Your task to perform on an android device: turn on wifi Image 0: 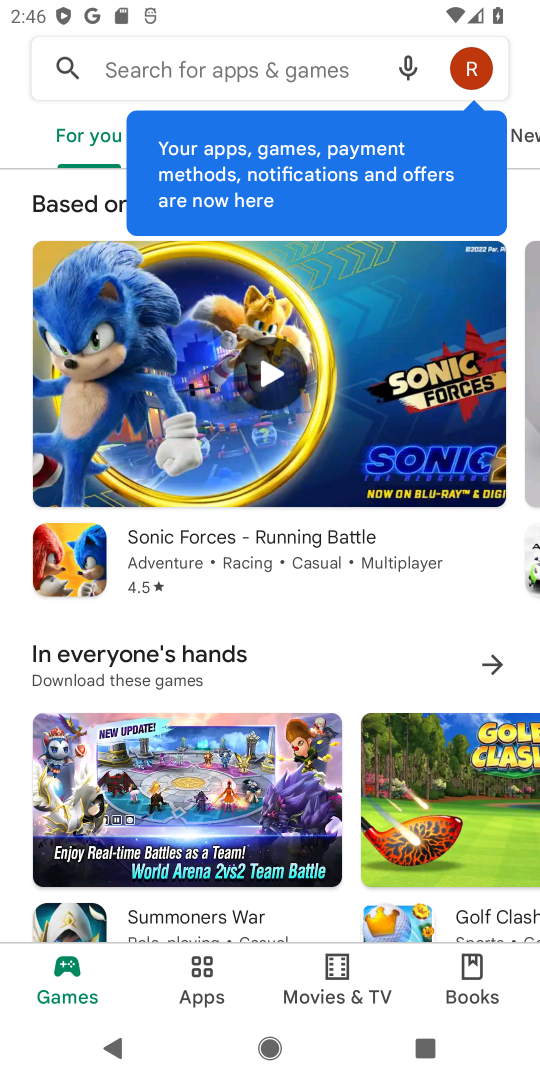
Step 0: press home button
Your task to perform on an android device: turn on wifi Image 1: 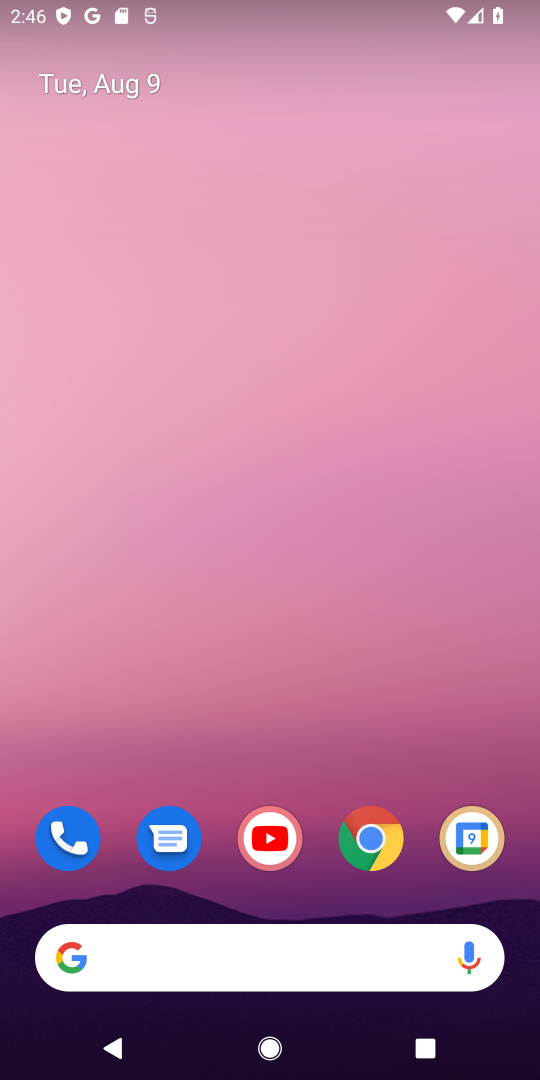
Step 1: drag from (390, 773) to (345, 22)
Your task to perform on an android device: turn on wifi Image 2: 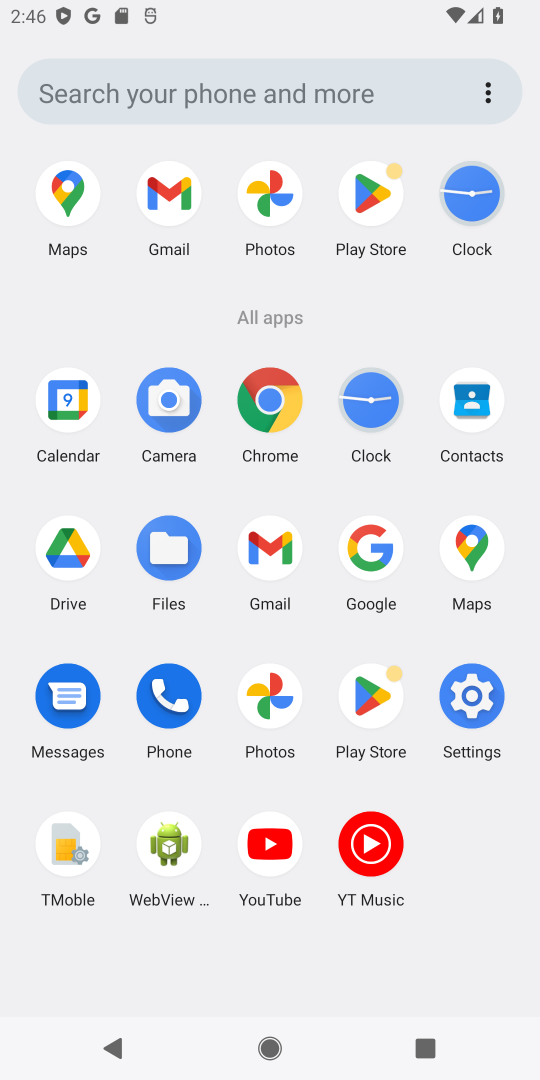
Step 2: click (475, 692)
Your task to perform on an android device: turn on wifi Image 3: 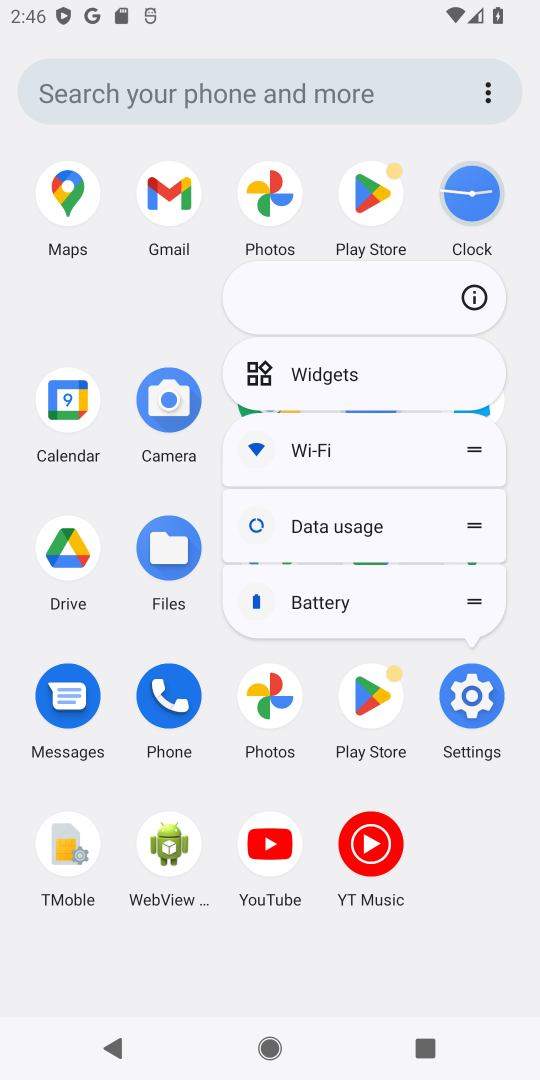
Step 3: click (475, 692)
Your task to perform on an android device: turn on wifi Image 4: 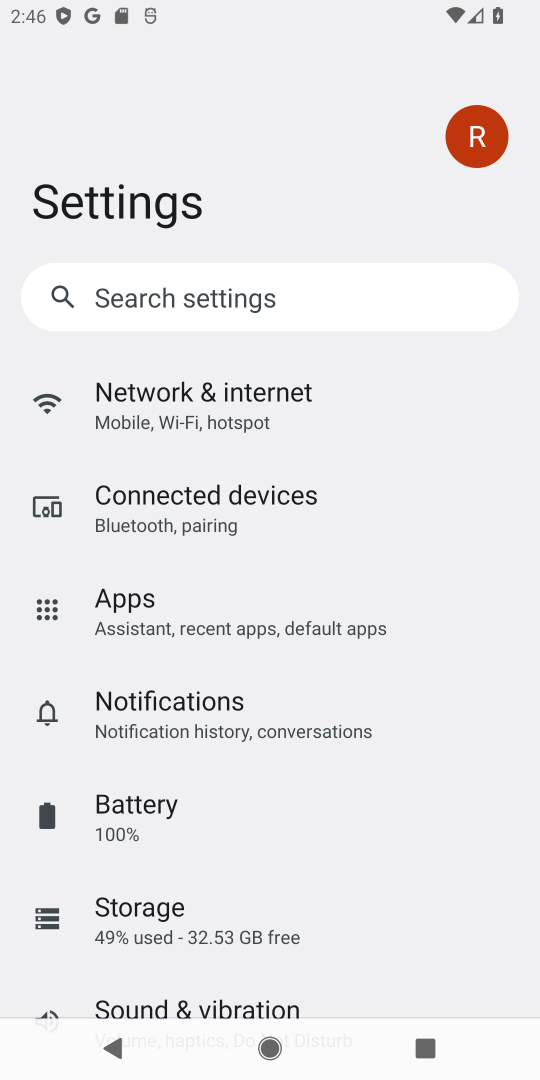
Step 4: click (181, 378)
Your task to perform on an android device: turn on wifi Image 5: 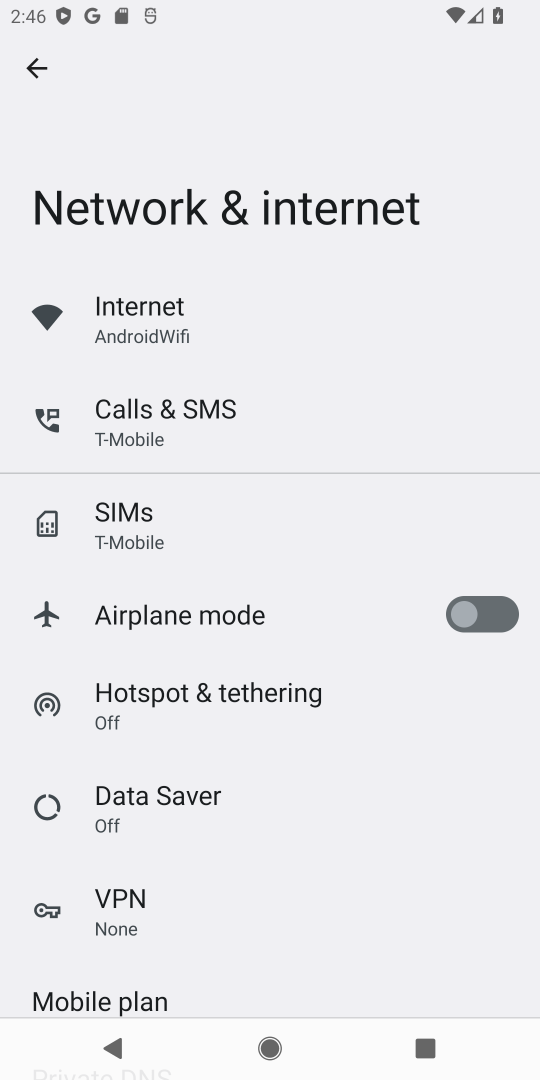
Step 5: click (173, 320)
Your task to perform on an android device: turn on wifi Image 6: 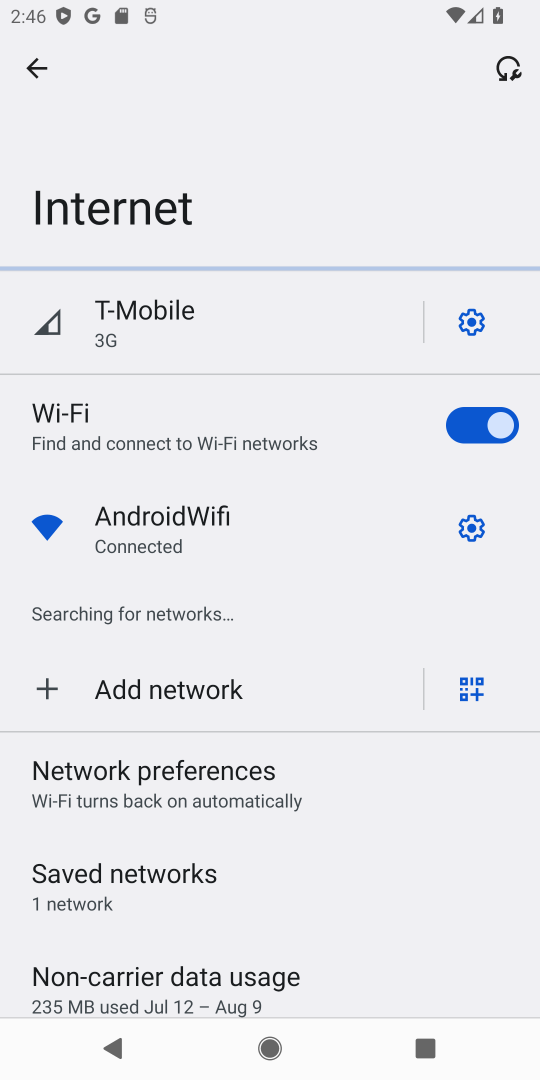
Step 6: task complete